Your task to perform on an android device: turn off smart reply in the gmail app Image 0: 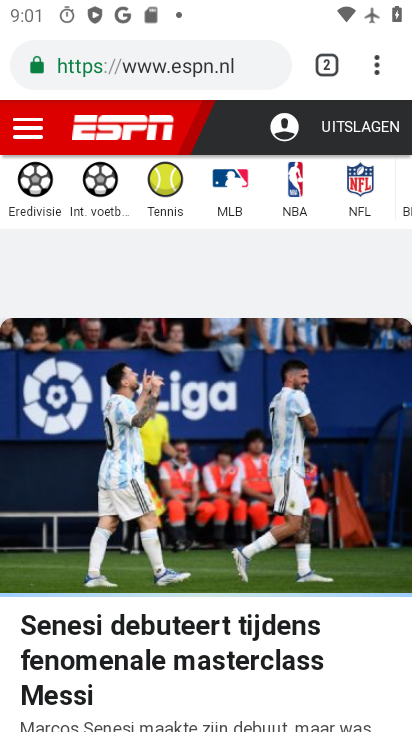
Step 0: press home button
Your task to perform on an android device: turn off smart reply in the gmail app Image 1: 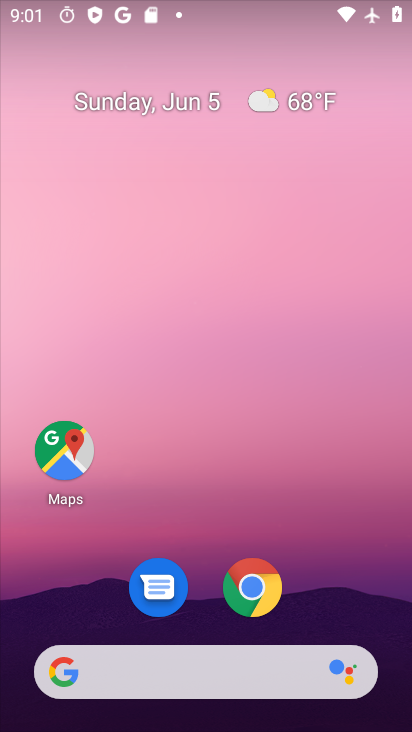
Step 1: drag from (340, 607) to (300, 176)
Your task to perform on an android device: turn off smart reply in the gmail app Image 2: 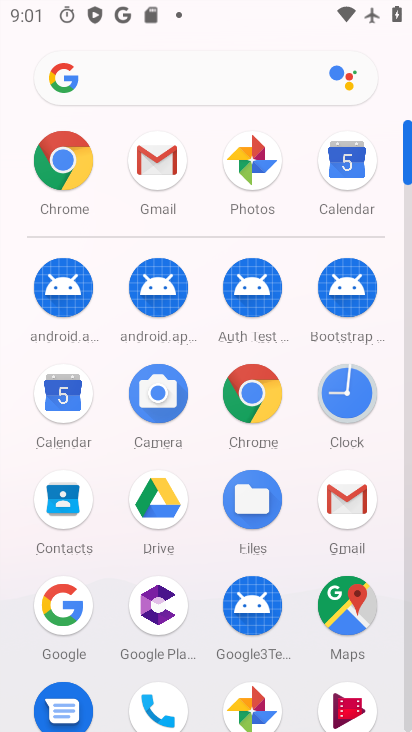
Step 2: click (356, 506)
Your task to perform on an android device: turn off smart reply in the gmail app Image 3: 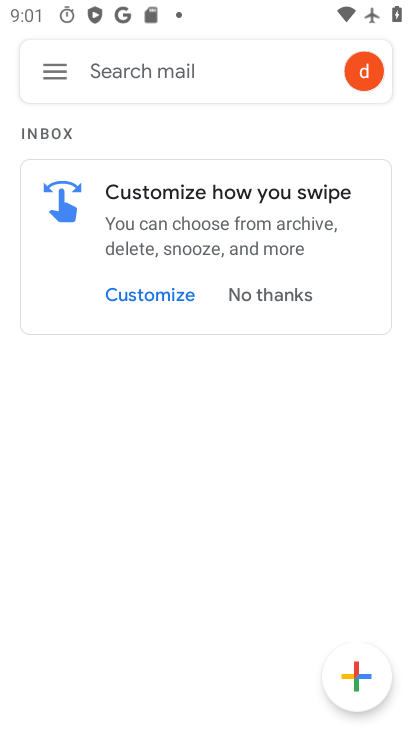
Step 3: click (60, 62)
Your task to perform on an android device: turn off smart reply in the gmail app Image 4: 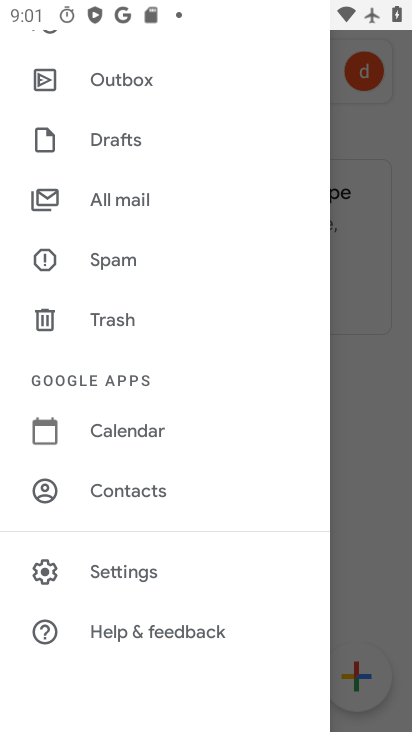
Step 4: click (142, 576)
Your task to perform on an android device: turn off smart reply in the gmail app Image 5: 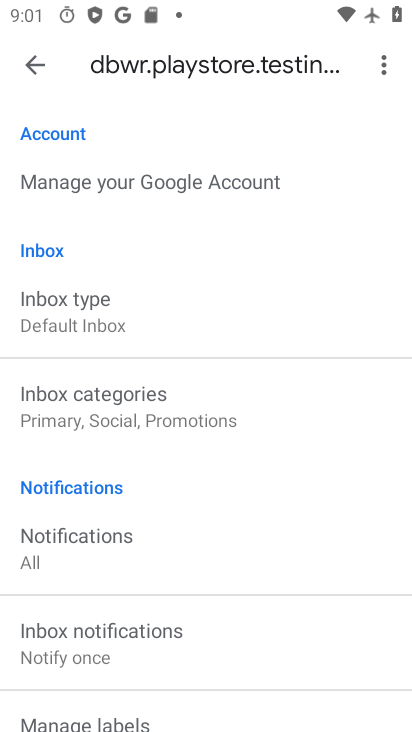
Step 5: drag from (134, 708) to (134, 386)
Your task to perform on an android device: turn off smart reply in the gmail app Image 6: 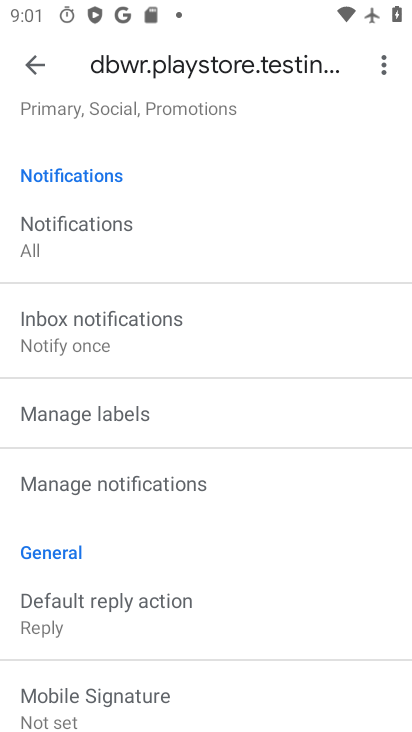
Step 6: drag from (110, 645) to (135, 275)
Your task to perform on an android device: turn off smart reply in the gmail app Image 7: 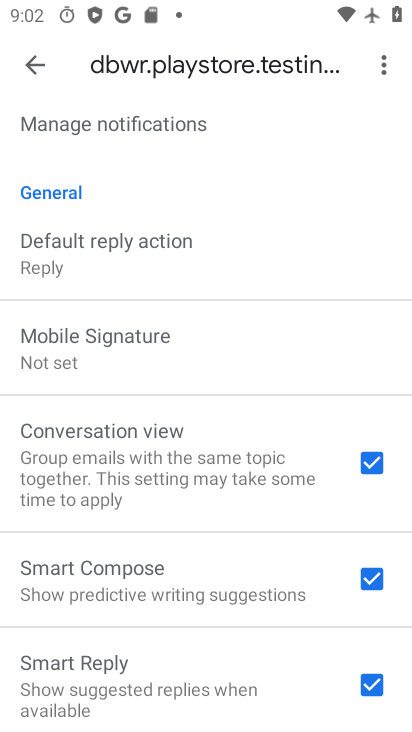
Step 7: drag from (59, 649) to (100, 295)
Your task to perform on an android device: turn off smart reply in the gmail app Image 8: 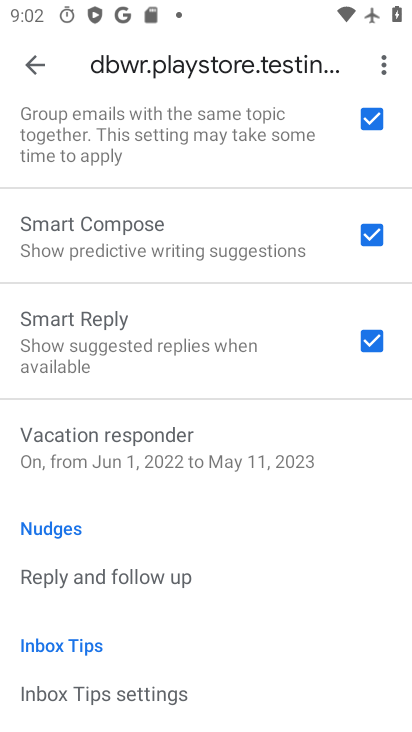
Step 8: click (375, 341)
Your task to perform on an android device: turn off smart reply in the gmail app Image 9: 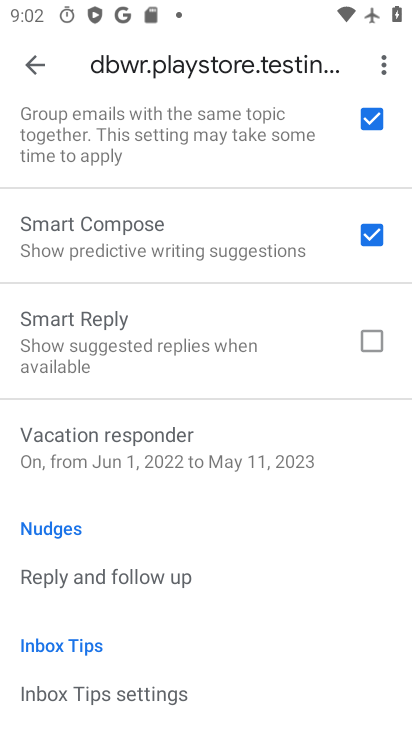
Step 9: task complete